Your task to perform on an android device: Open Youtube and go to "Your channel" Image 0: 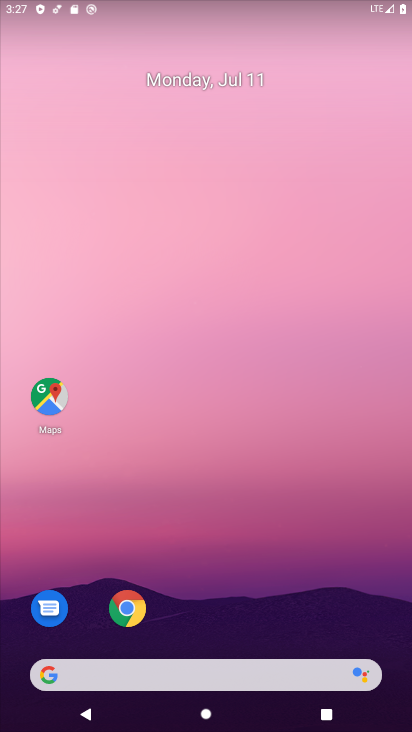
Step 0: drag from (218, 634) to (237, 94)
Your task to perform on an android device: Open Youtube and go to "Your channel" Image 1: 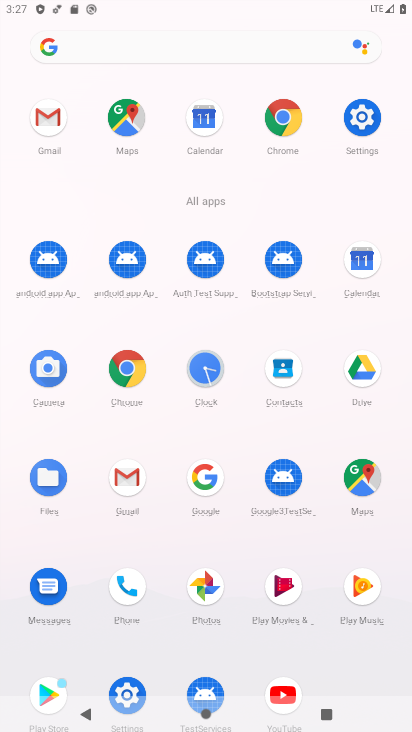
Step 1: click (280, 689)
Your task to perform on an android device: Open Youtube and go to "Your channel" Image 2: 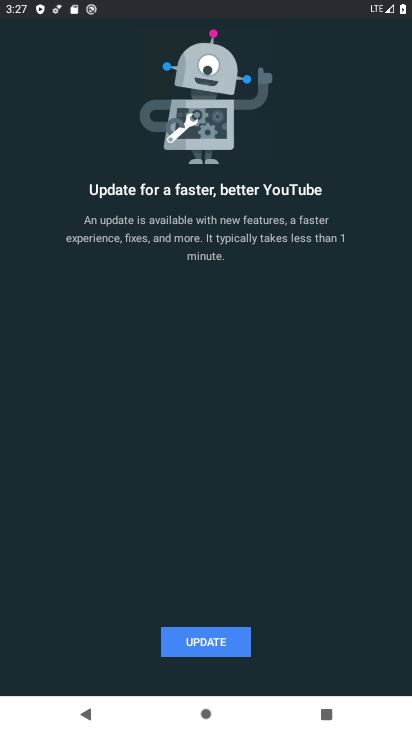
Step 2: click (218, 641)
Your task to perform on an android device: Open Youtube and go to "Your channel" Image 3: 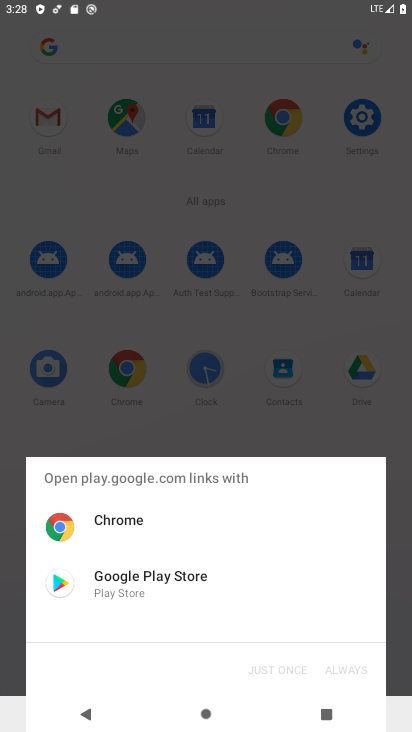
Step 3: click (128, 575)
Your task to perform on an android device: Open Youtube and go to "Your channel" Image 4: 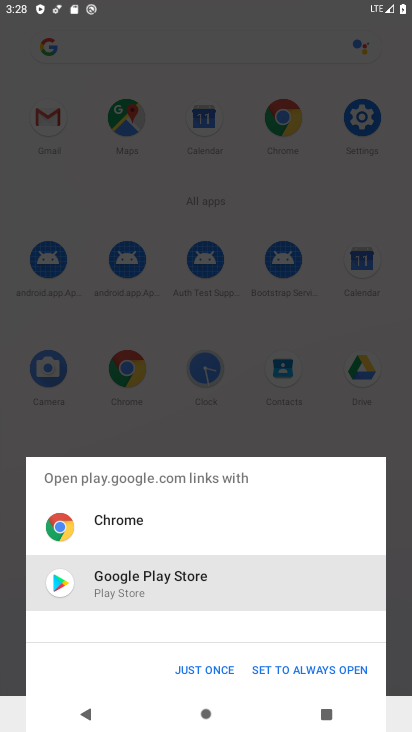
Step 4: click (211, 667)
Your task to perform on an android device: Open Youtube and go to "Your channel" Image 5: 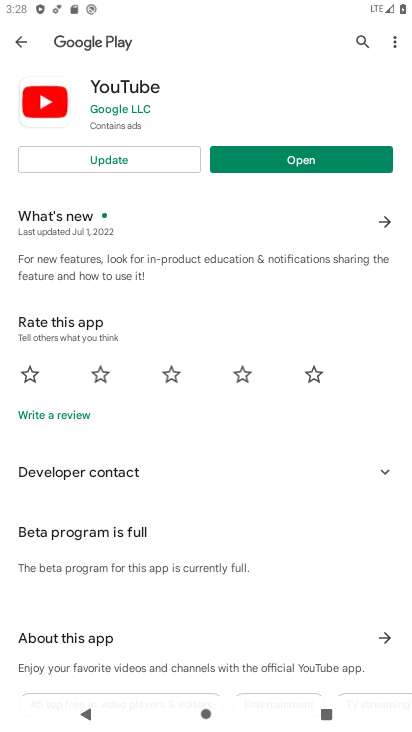
Step 5: click (96, 158)
Your task to perform on an android device: Open Youtube and go to "Your channel" Image 6: 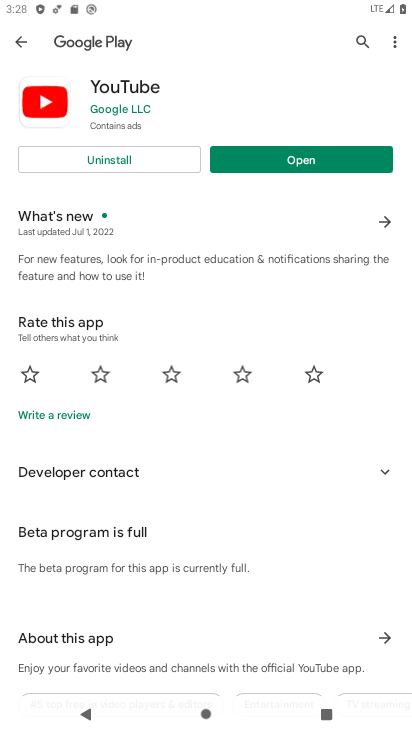
Step 6: click (314, 159)
Your task to perform on an android device: Open Youtube and go to "Your channel" Image 7: 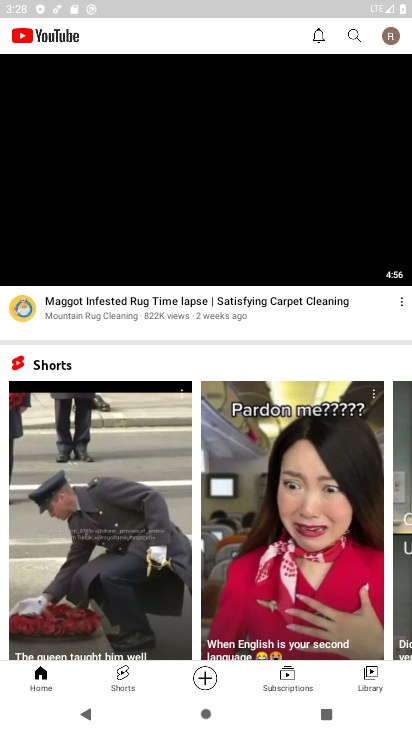
Step 7: click (389, 42)
Your task to perform on an android device: Open Youtube and go to "Your channel" Image 8: 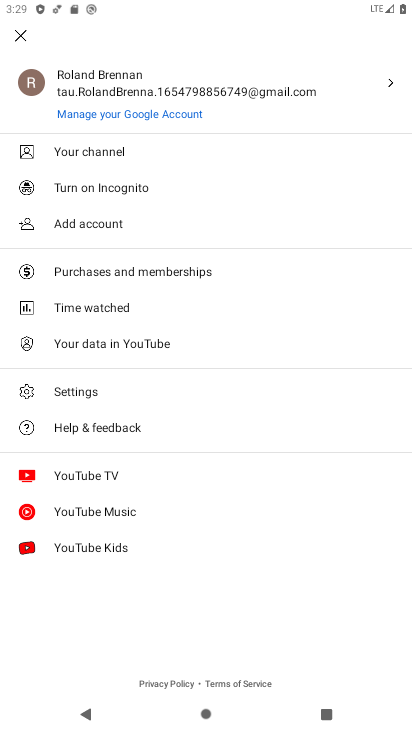
Step 8: click (166, 158)
Your task to perform on an android device: Open Youtube and go to "Your channel" Image 9: 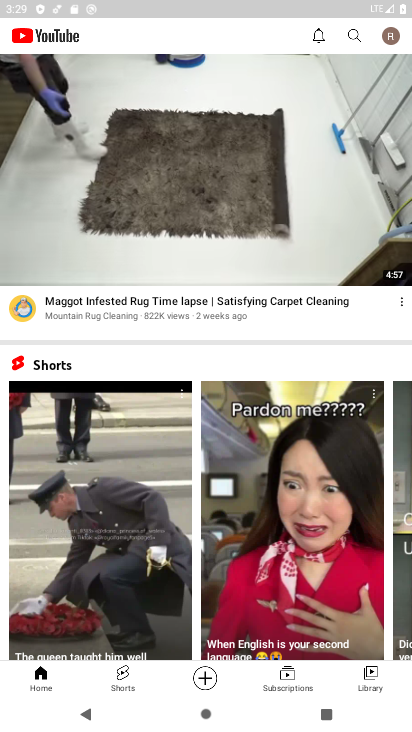
Step 9: task complete